Your task to perform on an android device: turn notification dots off Image 0: 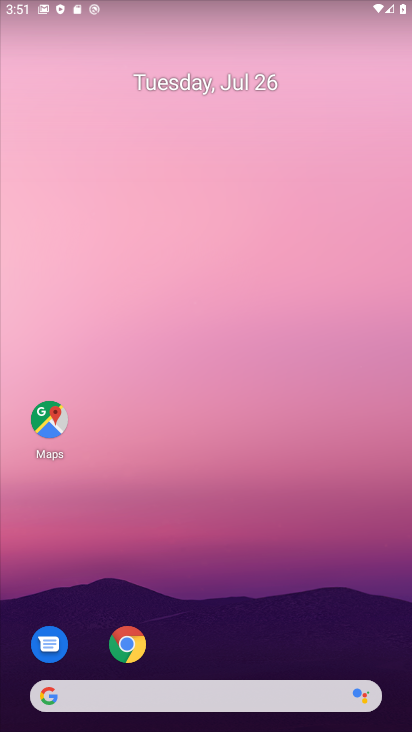
Step 0: drag from (392, 657) to (345, 65)
Your task to perform on an android device: turn notification dots off Image 1: 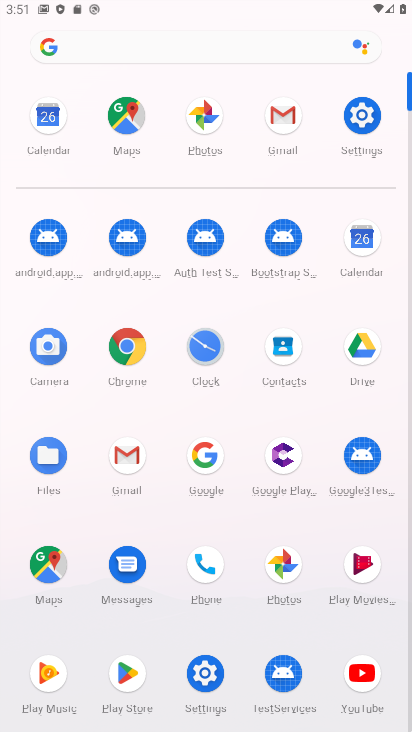
Step 1: click (206, 674)
Your task to perform on an android device: turn notification dots off Image 2: 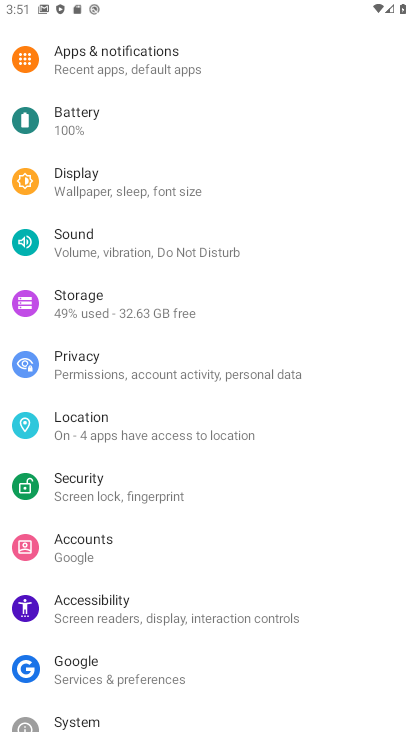
Step 2: drag from (285, 149) to (318, 394)
Your task to perform on an android device: turn notification dots off Image 3: 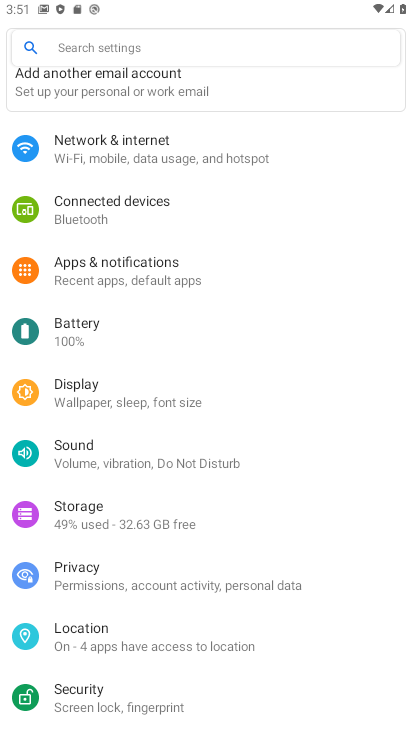
Step 3: click (103, 267)
Your task to perform on an android device: turn notification dots off Image 4: 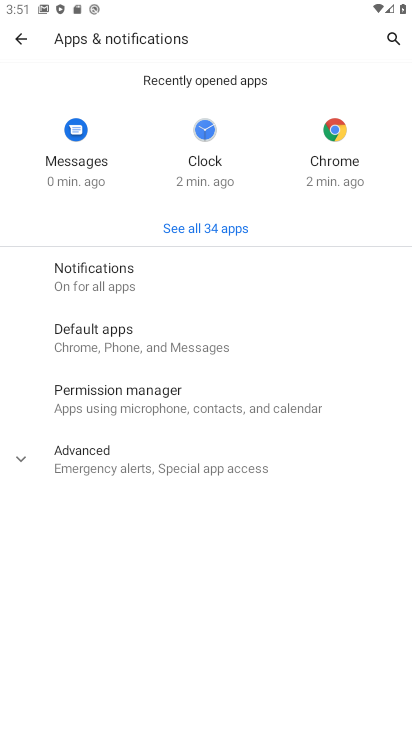
Step 4: click (103, 267)
Your task to perform on an android device: turn notification dots off Image 5: 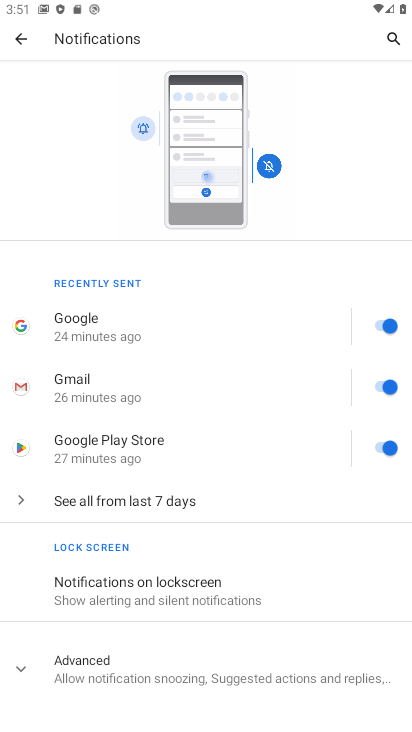
Step 5: drag from (256, 632) to (312, 253)
Your task to perform on an android device: turn notification dots off Image 6: 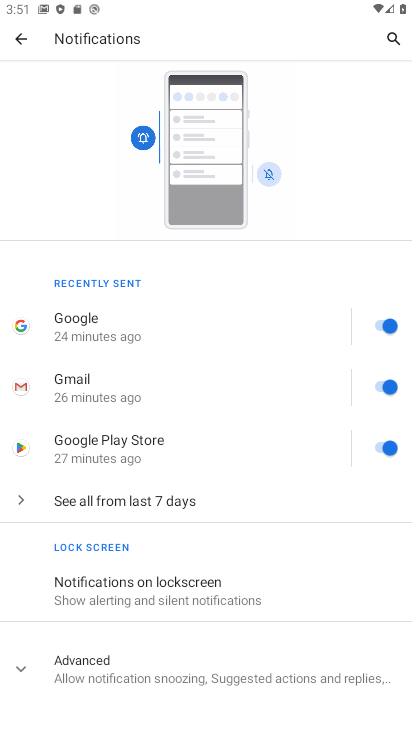
Step 6: click (23, 668)
Your task to perform on an android device: turn notification dots off Image 7: 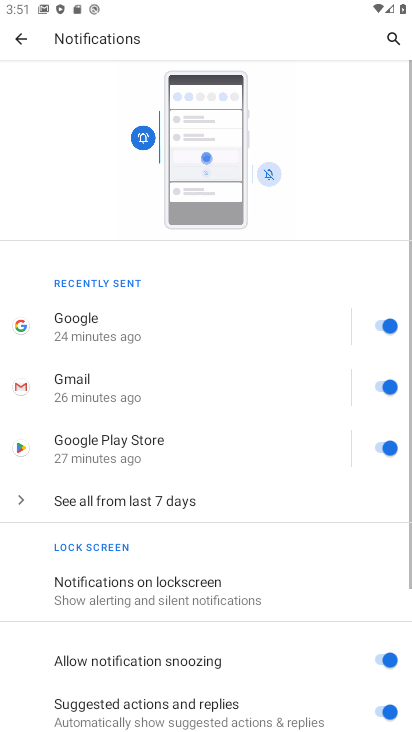
Step 7: task complete